Your task to perform on an android device: refresh tabs in the chrome app Image 0: 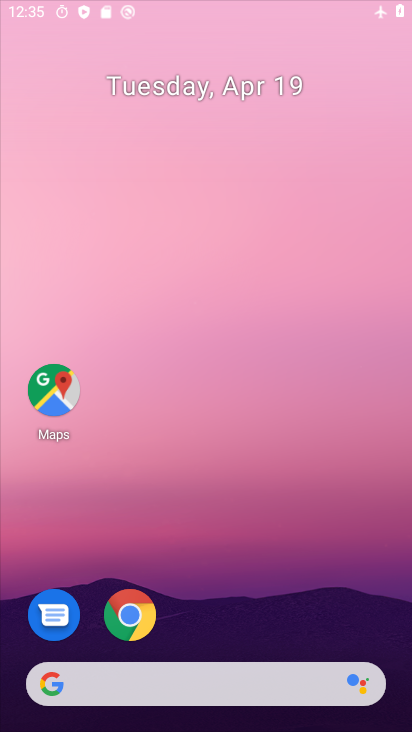
Step 0: click (349, 45)
Your task to perform on an android device: refresh tabs in the chrome app Image 1: 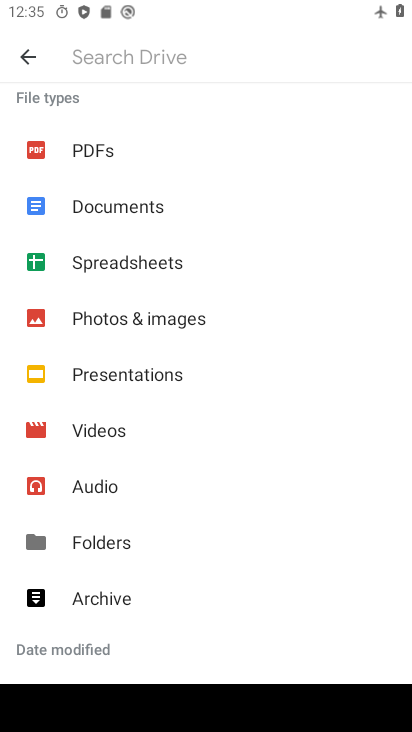
Step 1: press home button
Your task to perform on an android device: refresh tabs in the chrome app Image 2: 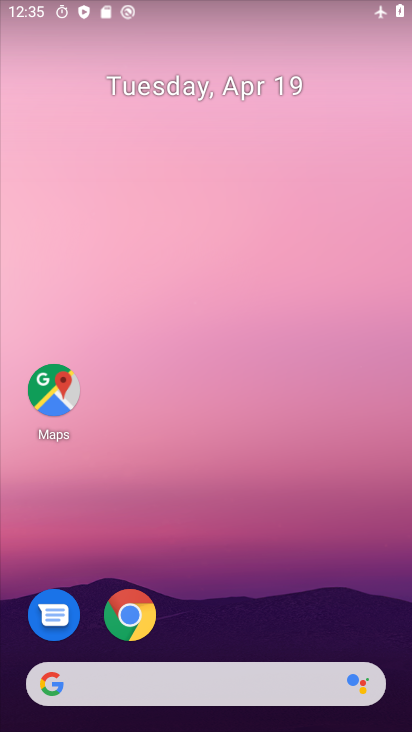
Step 2: drag from (375, 590) to (367, 130)
Your task to perform on an android device: refresh tabs in the chrome app Image 3: 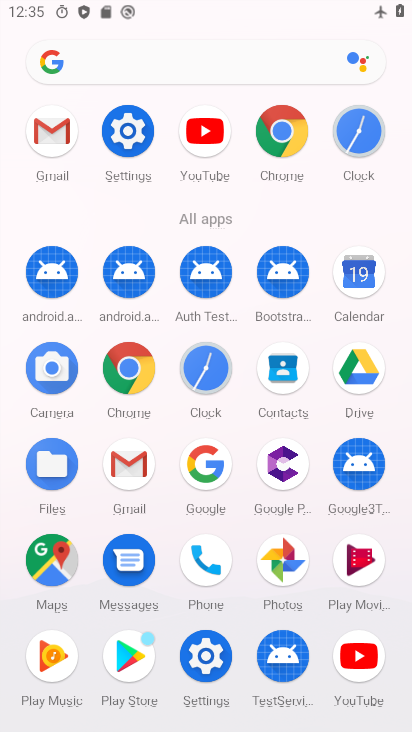
Step 3: click (131, 372)
Your task to perform on an android device: refresh tabs in the chrome app Image 4: 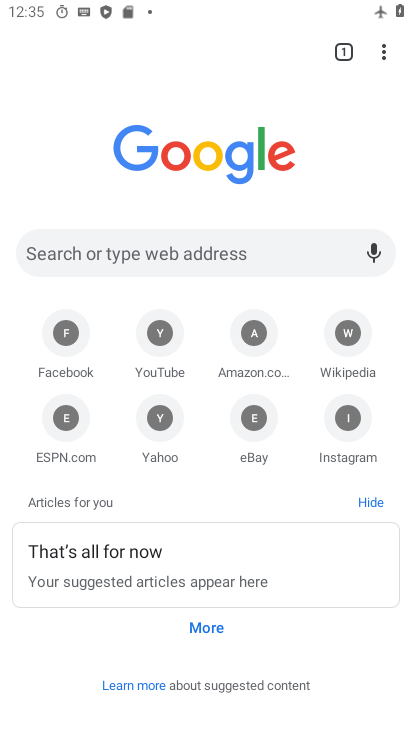
Step 4: click (382, 49)
Your task to perform on an android device: refresh tabs in the chrome app Image 5: 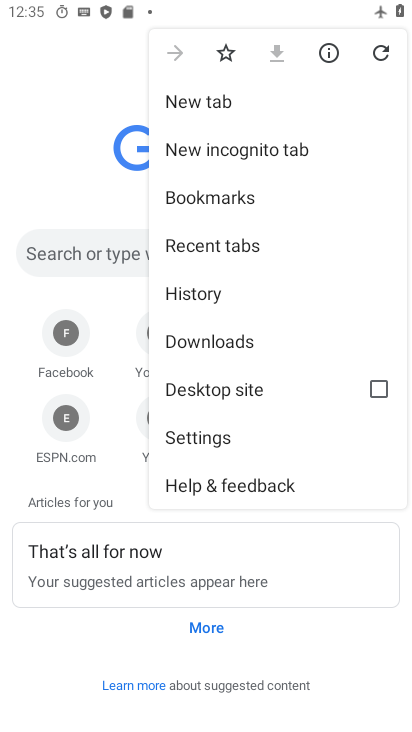
Step 5: click (381, 47)
Your task to perform on an android device: refresh tabs in the chrome app Image 6: 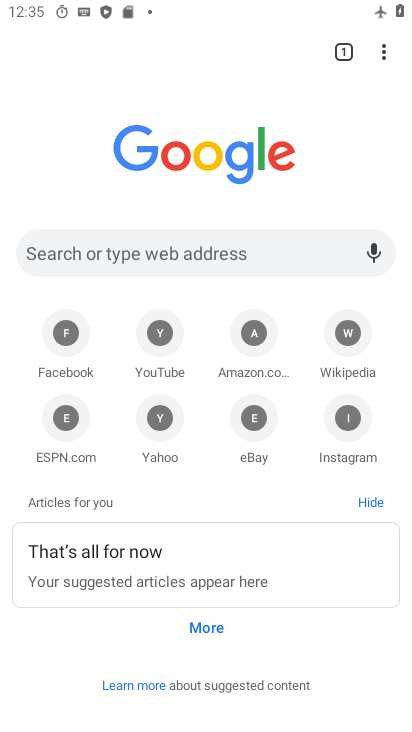
Step 6: task complete